Your task to perform on an android device: Open notification settings Image 0: 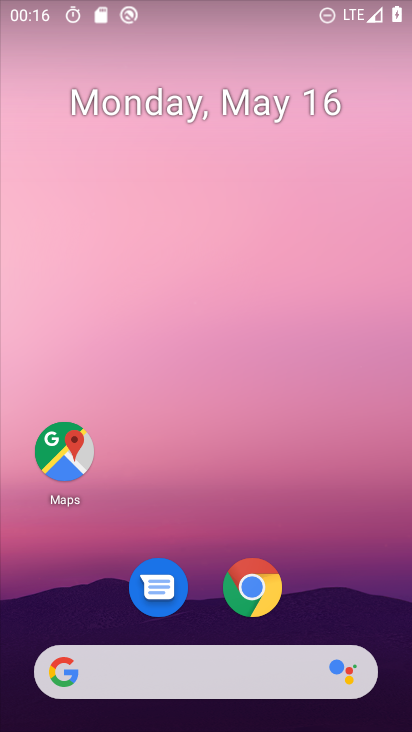
Step 0: drag from (210, 615) to (225, 191)
Your task to perform on an android device: Open notification settings Image 1: 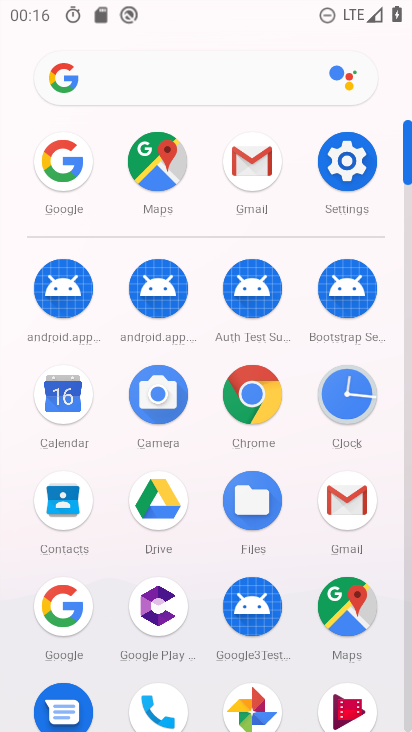
Step 1: click (348, 172)
Your task to perform on an android device: Open notification settings Image 2: 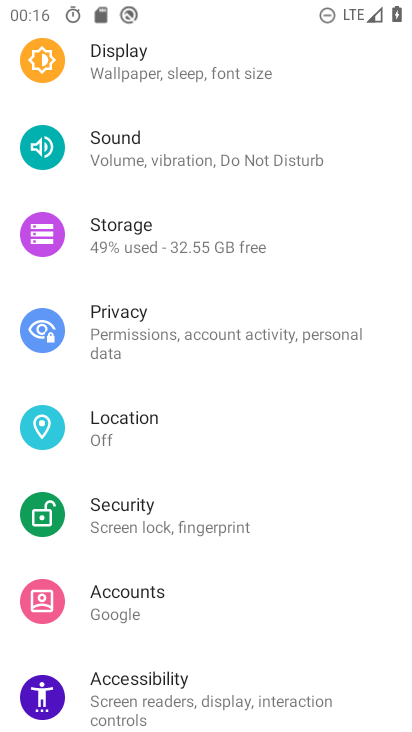
Step 2: drag from (233, 232) to (240, 456)
Your task to perform on an android device: Open notification settings Image 3: 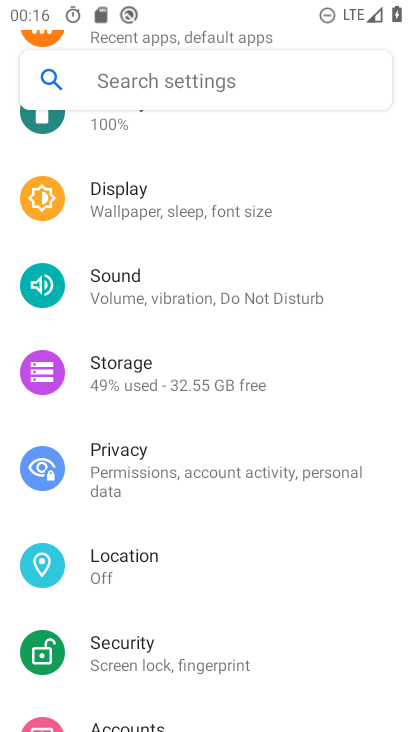
Step 3: drag from (206, 272) to (238, 549)
Your task to perform on an android device: Open notification settings Image 4: 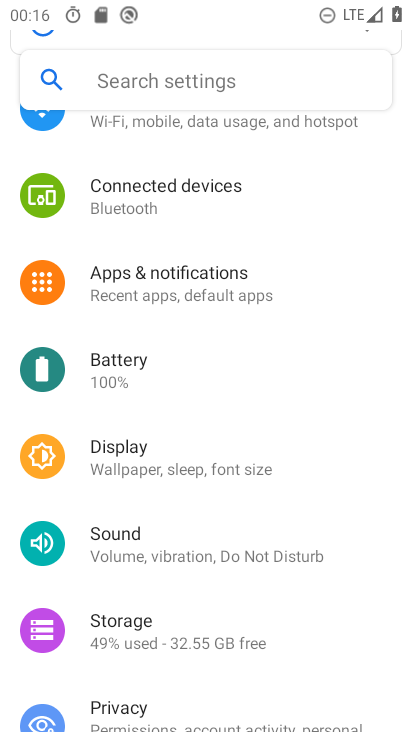
Step 4: click (191, 307)
Your task to perform on an android device: Open notification settings Image 5: 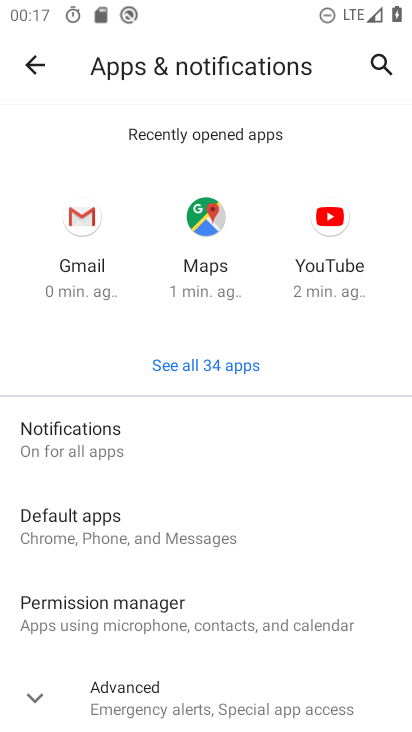
Step 5: click (36, 424)
Your task to perform on an android device: Open notification settings Image 6: 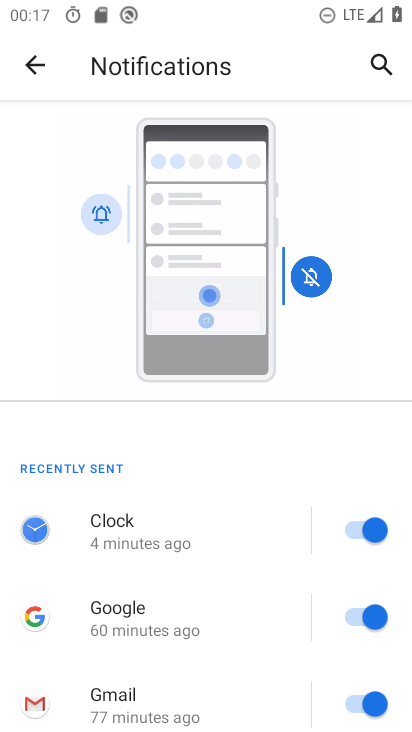
Step 6: drag from (195, 596) to (229, 157)
Your task to perform on an android device: Open notification settings Image 7: 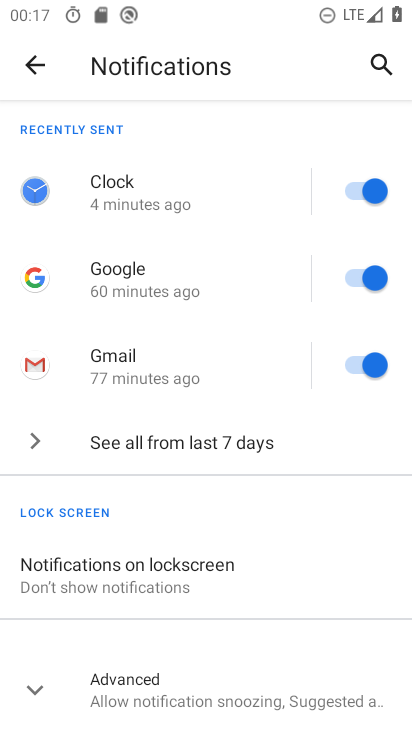
Step 7: drag from (189, 568) to (193, 303)
Your task to perform on an android device: Open notification settings Image 8: 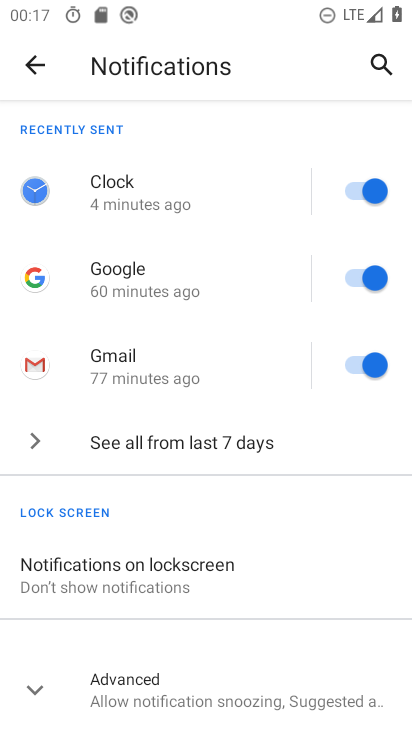
Step 8: click (184, 675)
Your task to perform on an android device: Open notification settings Image 9: 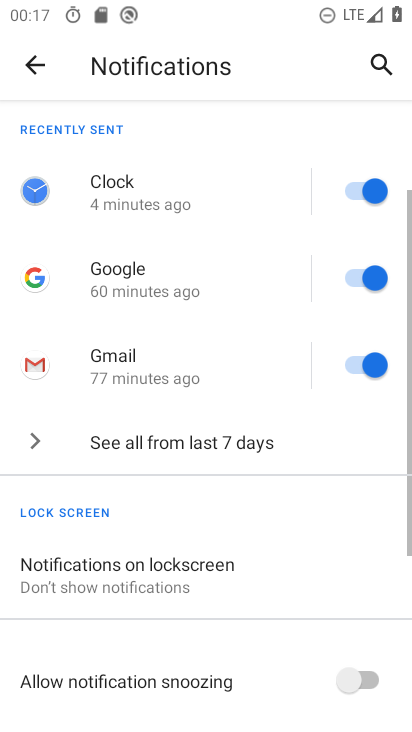
Step 9: task complete